Your task to perform on an android device: Search for the new Air Jordan 13 on Nike.com Image 0: 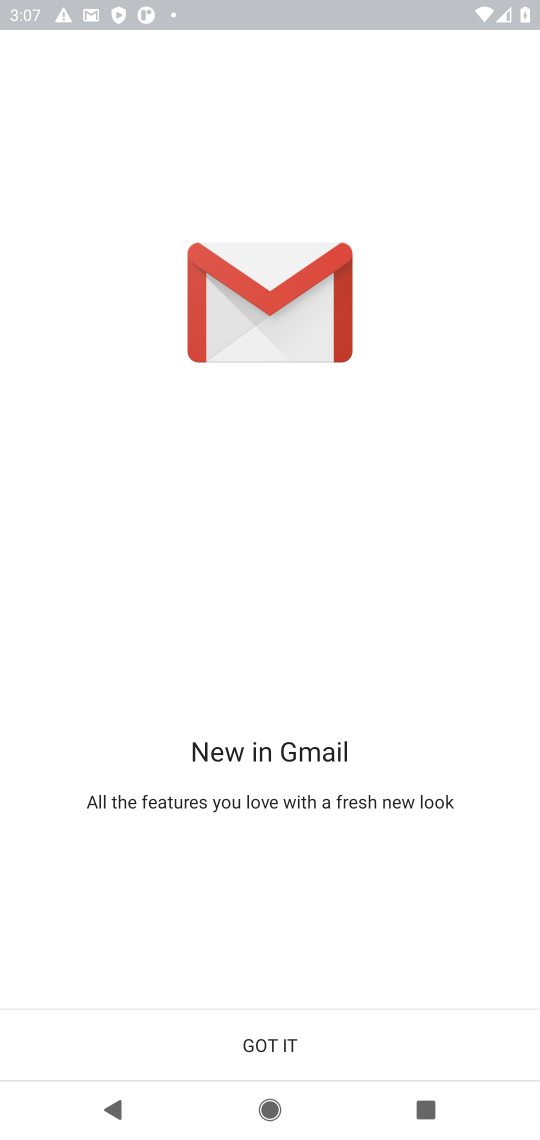
Step 0: press home button
Your task to perform on an android device: Search for the new Air Jordan 13 on Nike.com Image 1: 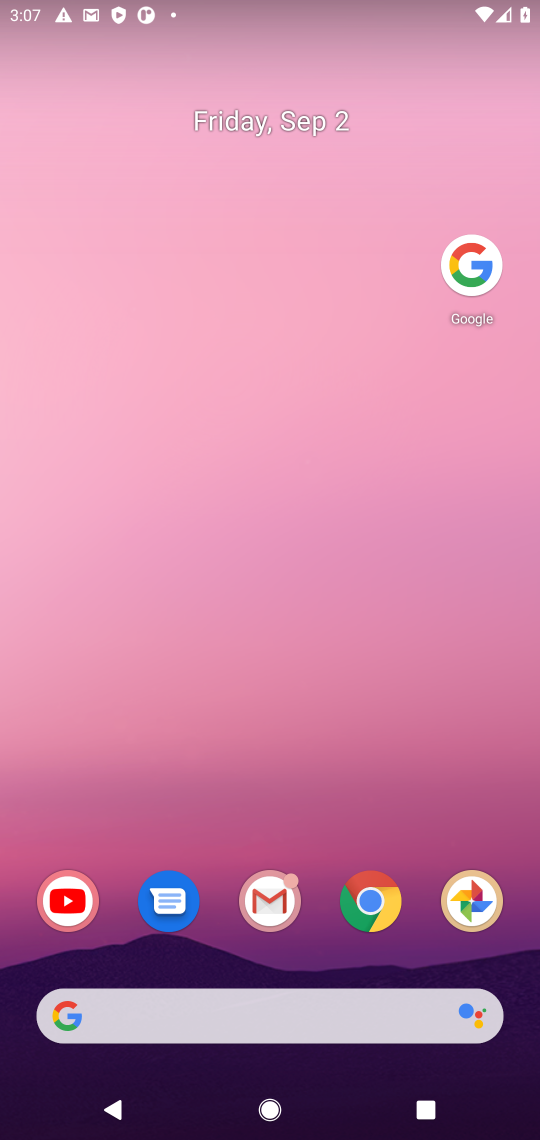
Step 1: click (470, 262)
Your task to perform on an android device: Search for the new Air Jordan 13 on Nike.com Image 2: 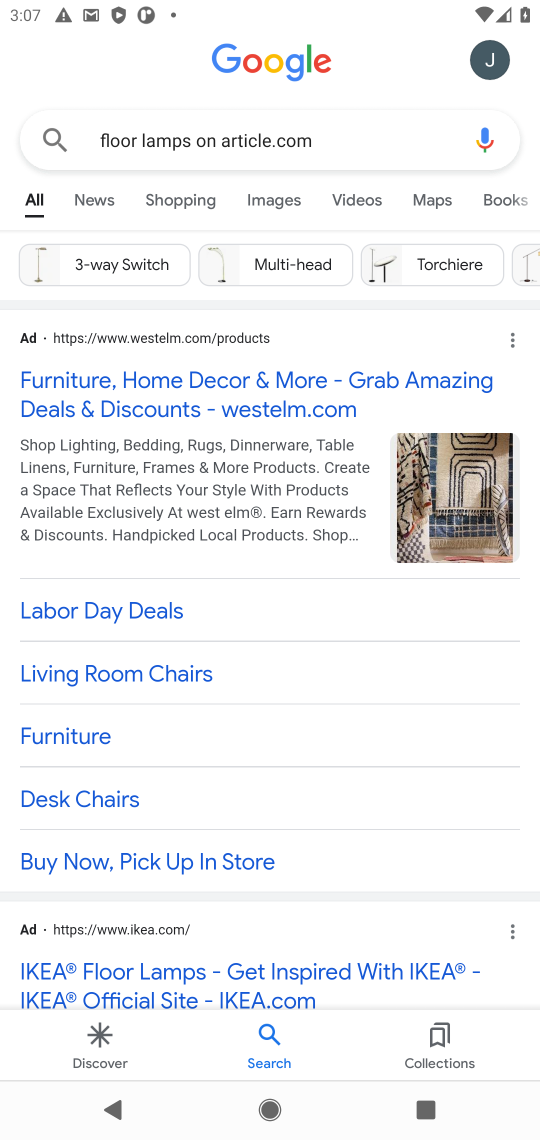
Step 2: click (324, 126)
Your task to perform on an android device: Search for the new Air Jordan 13 on Nike.com Image 3: 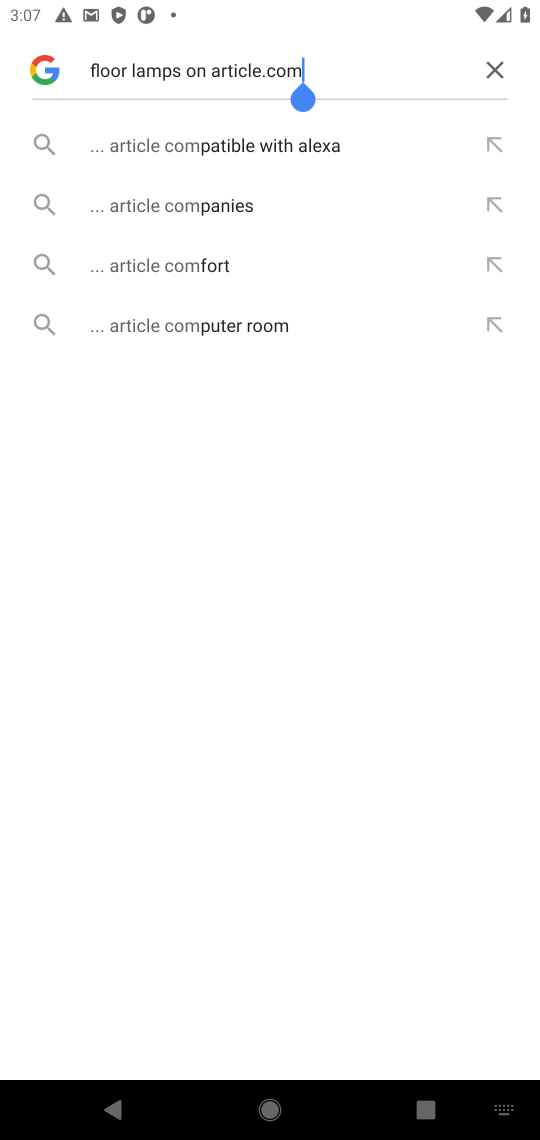
Step 3: click (489, 61)
Your task to perform on an android device: Search for the new Air Jordan 13 on Nike.com Image 4: 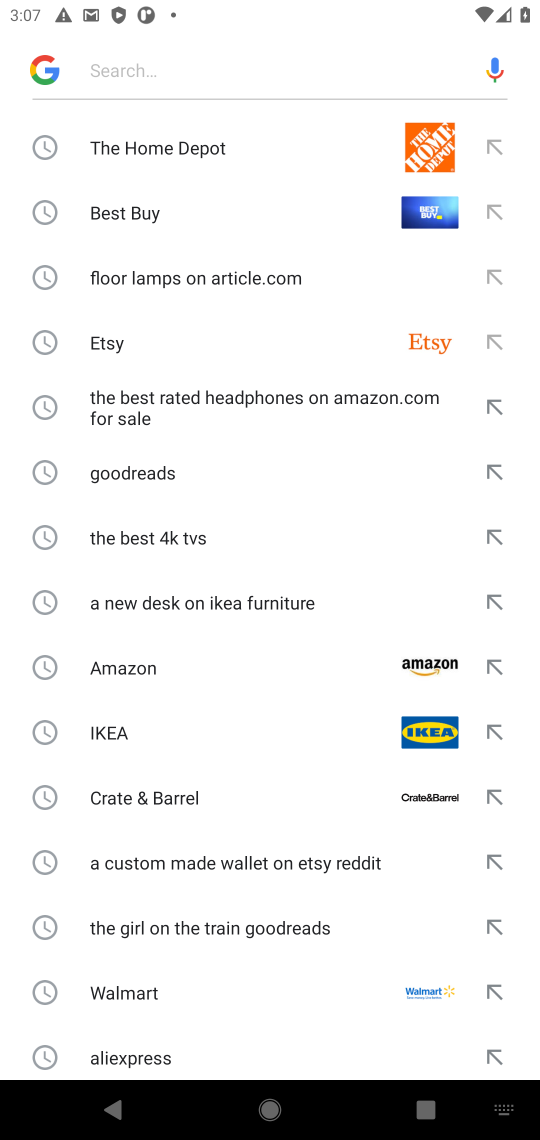
Step 4: click (182, 76)
Your task to perform on an android device: Search for the new Air Jordan 13 on Nike.com Image 5: 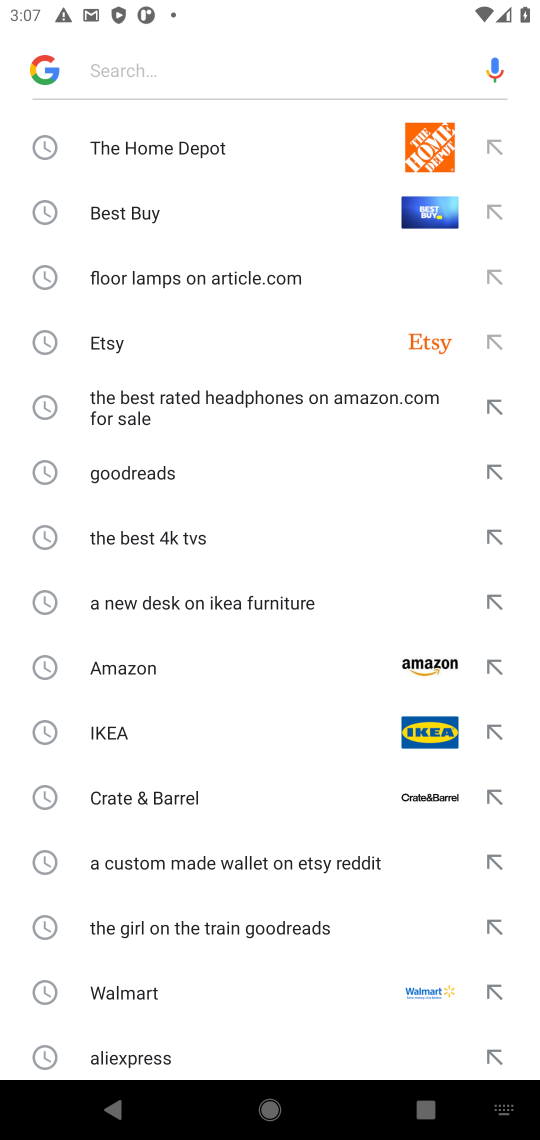
Step 5: type " the new Air Jordan 13 on Nike.com "
Your task to perform on an android device: Search for the new Air Jordan 13 on Nike.com Image 6: 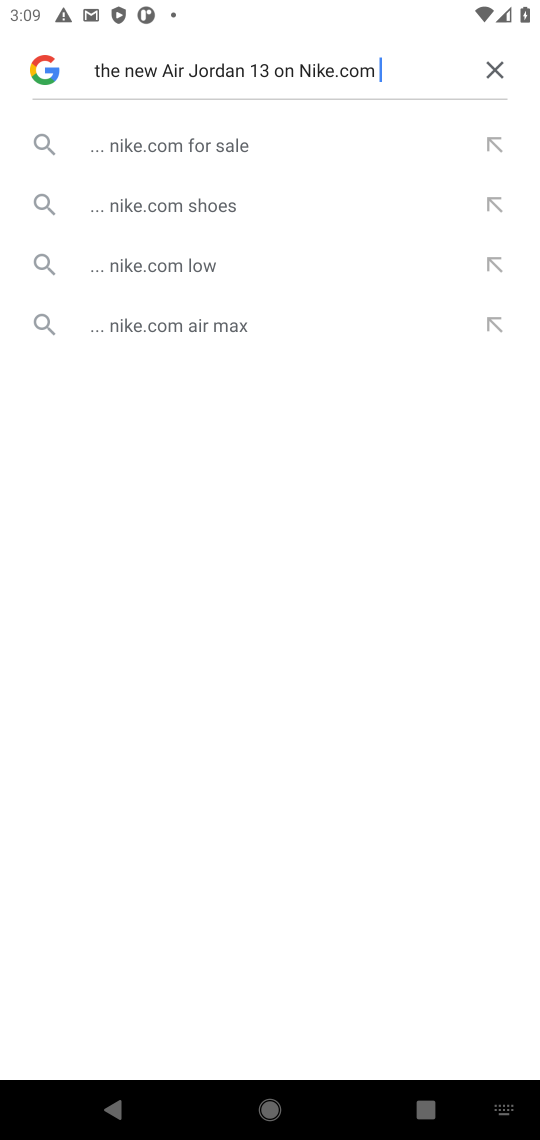
Step 6: click (218, 219)
Your task to perform on an android device: Search for the new Air Jordan 13 on Nike.com Image 7: 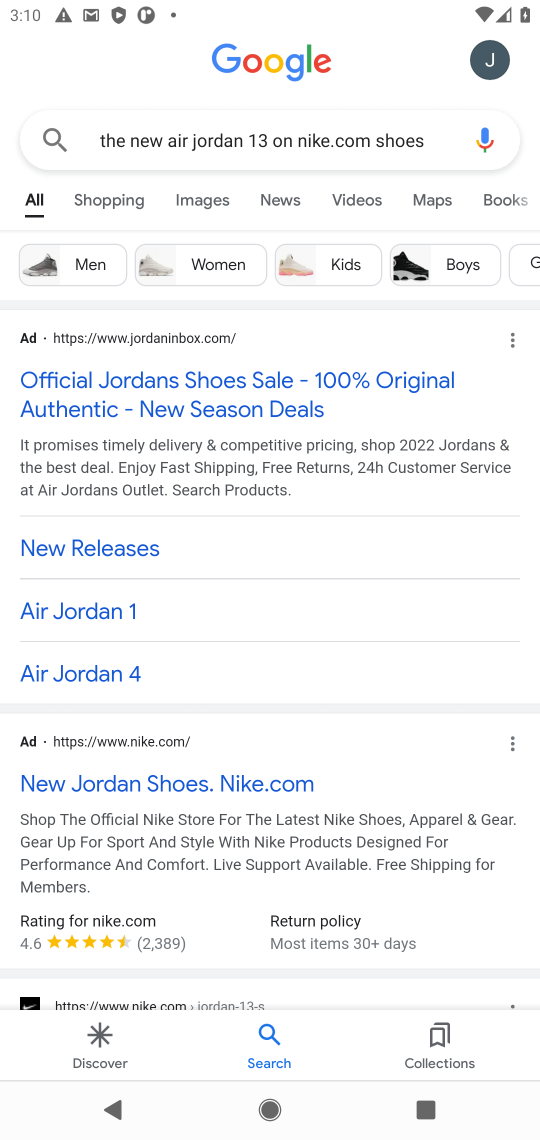
Step 7: click (215, 391)
Your task to perform on an android device: Search for the new Air Jordan 13 on Nike.com Image 8: 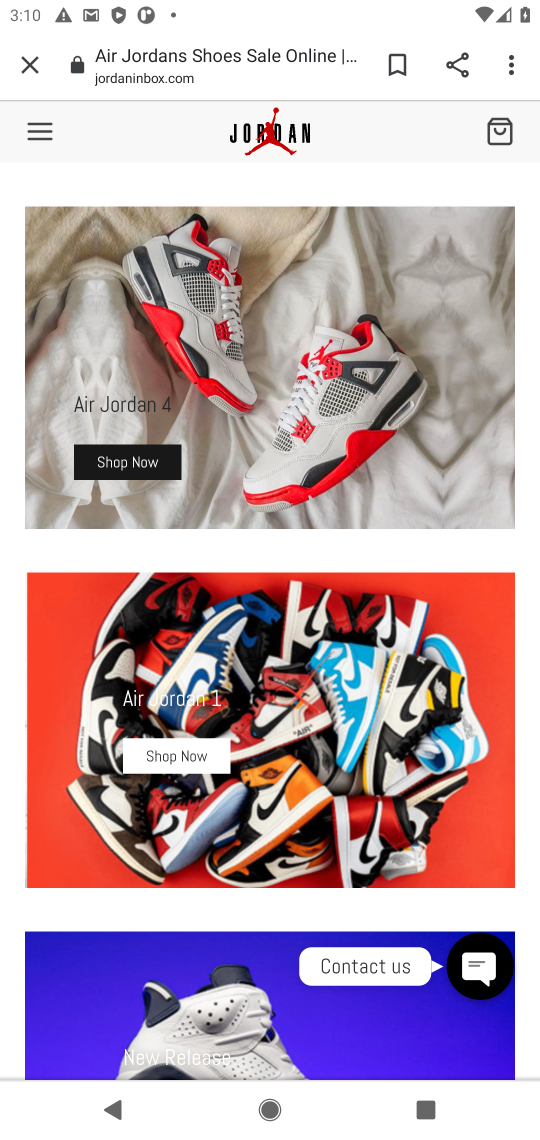
Step 8: task complete